Your task to perform on an android device: Set the phone to "Do not disturb". Image 0: 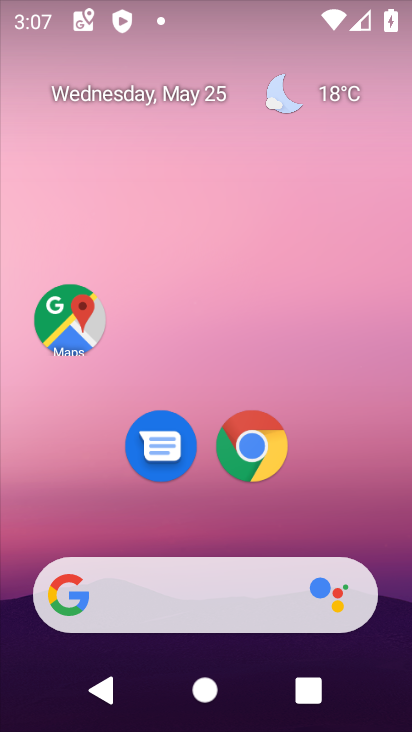
Step 0: drag from (197, 612) to (258, 15)
Your task to perform on an android device: Set the phone to "Do not disturb". Image 1: 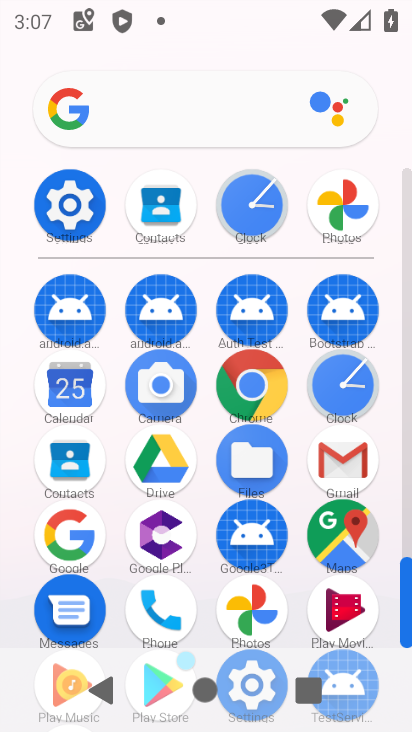
Step 1: click (72, 187)
Your task to perform on an android device: Set the phone to "Do not disturb". Image 2: 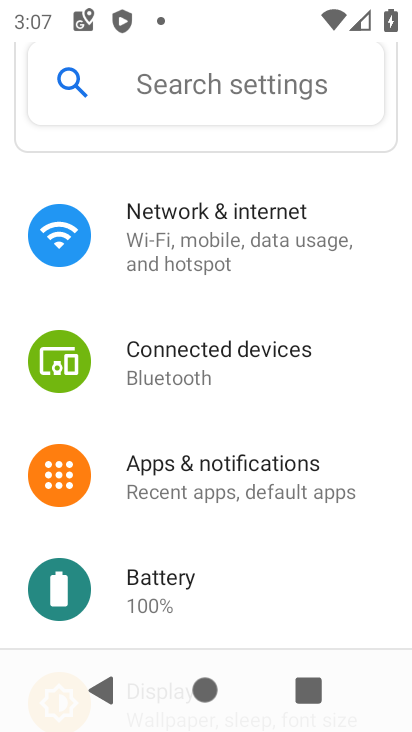
Step 2: drag from (262, 618) to (232, 145)
Your task to perform on an android device: Set the phone to "Do not disturb". Image 3: 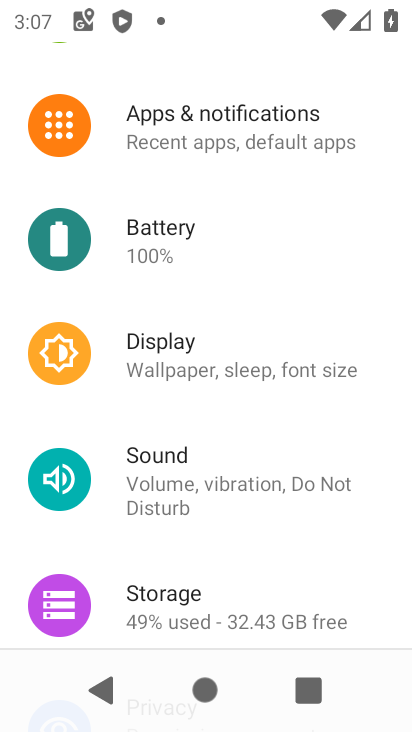
Step 3: drag from (166, 571) to (162, 494)
Your task to perform on an android device: Set the phone to "Do not disturb". Image 4: 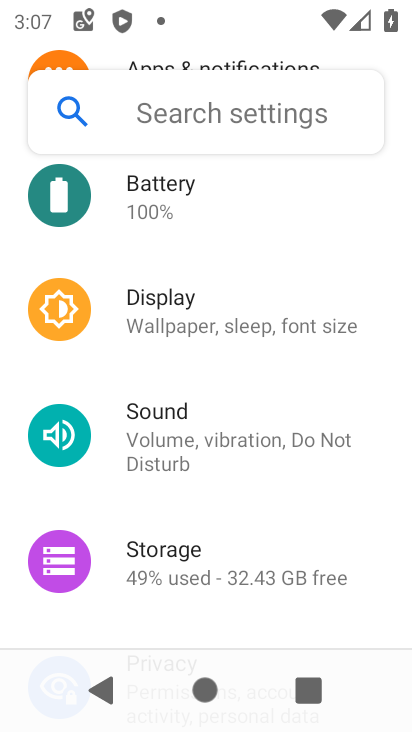
Step 4: click (178, 338)
Your task to perform on an android device: Set the phone to "Do not disturb". Image 5: 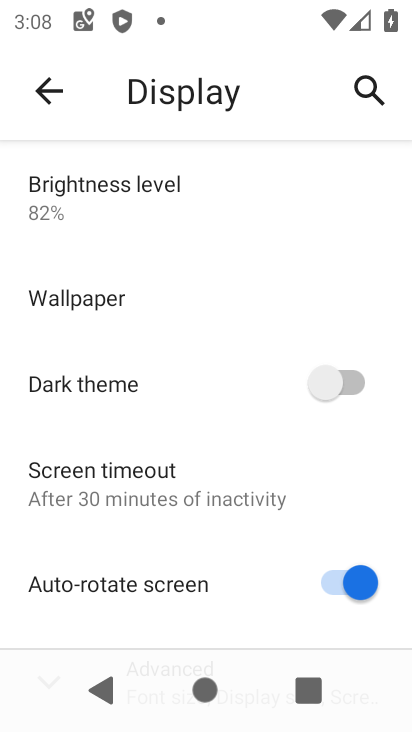
Step 5: drag from (140, 276) to (123, 629)
Your task to perform on an android device: Set the phone to "Do not disturb". Image 6: 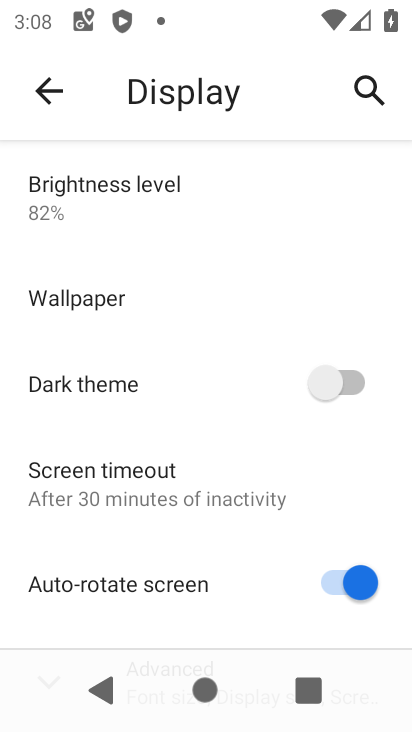
Step 6: drag from (228, 523) to (245, 131)
Your task to perform on an android device: Set the phone to "Do not disturb". Image 7: 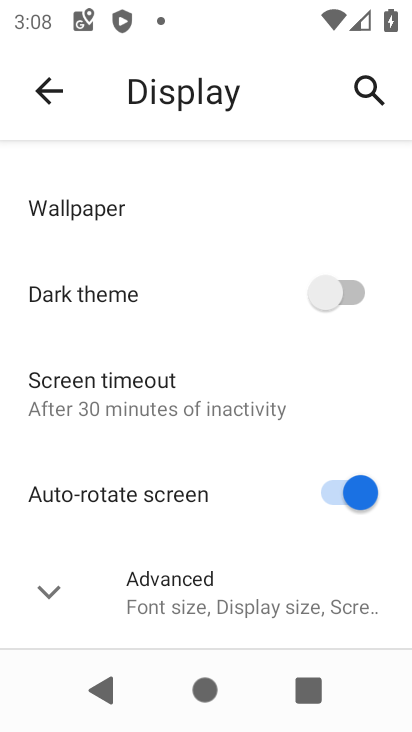
Step 7: drag from (164, 200) to (181, 658)
Your task to perform on an android device: Set the phone to "Do not disturb". Image 8: 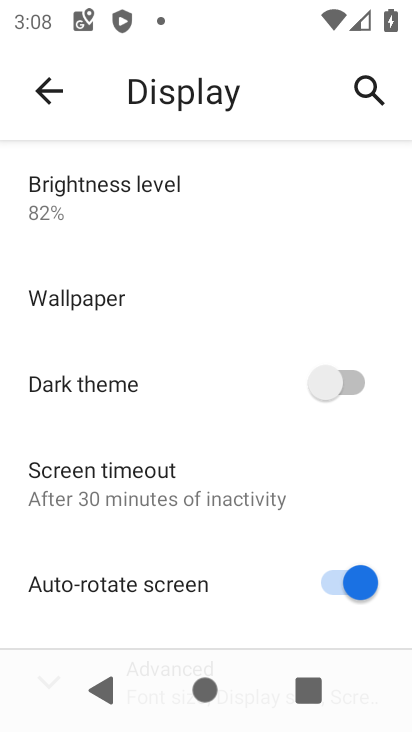
Step 8: drag from (181, 543) to (204, 92)
Your task to perform on an android device: Set the phone to "Do not disturb". Image 9: 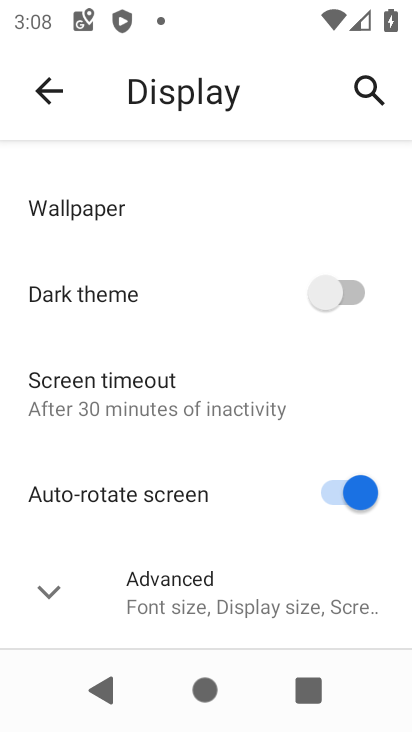
Step 9: click (62, 81)
Your task to perform on an android device: Set the phone to "Do not disturb". Image 10: 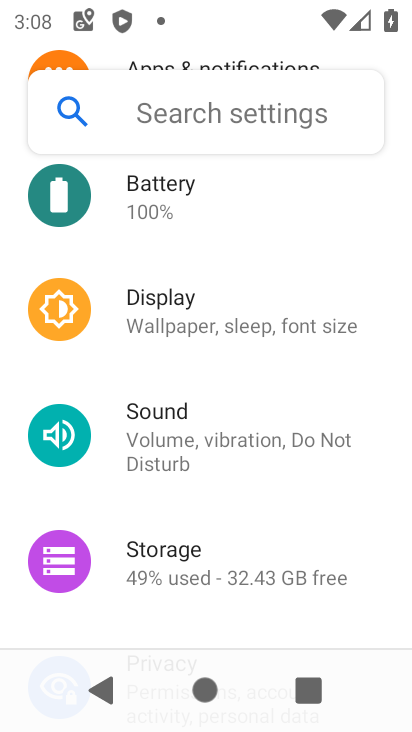
Step 10: click (170, 419)
Your task to perform on an android device: Set the phone to "Do not disturb". Image 11: 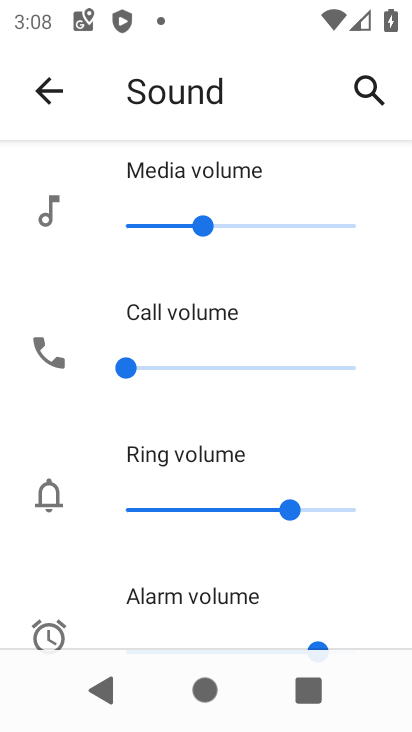
Step 11: drag from (249, 557) to (239, 62)
Your task to perform on an android device: Set the phone to "Do not disturb". Image 12: 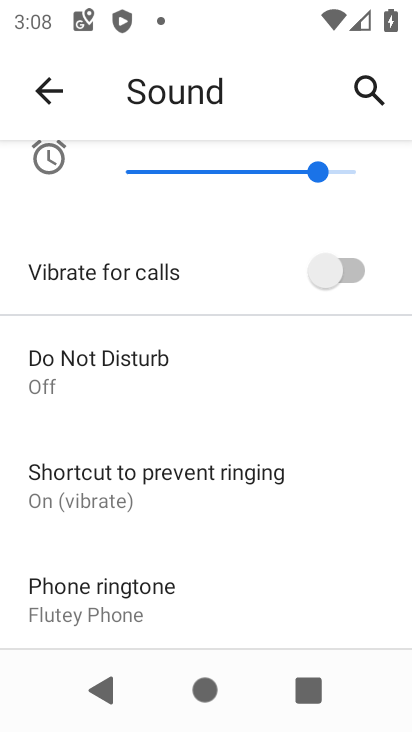
Step 12: click (129, 385)
Your task to perform on an android device: Set the phone to "Do not disturb". Image 13: 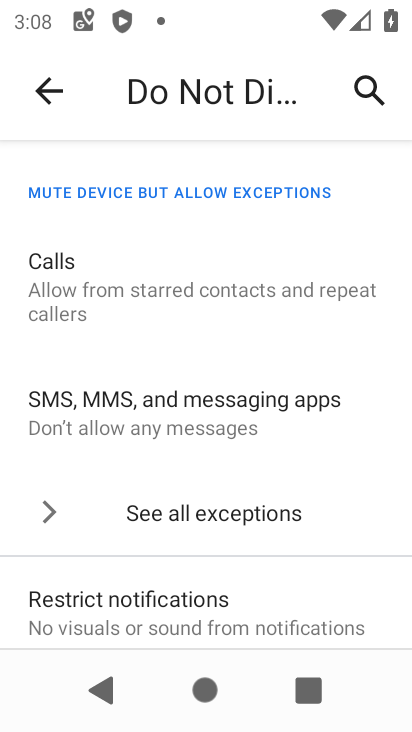
Step 13: drag from (234, 513) to (160, 18)
Your task to perform on an android device: Set the phone to "Do not disturb". Image 14: 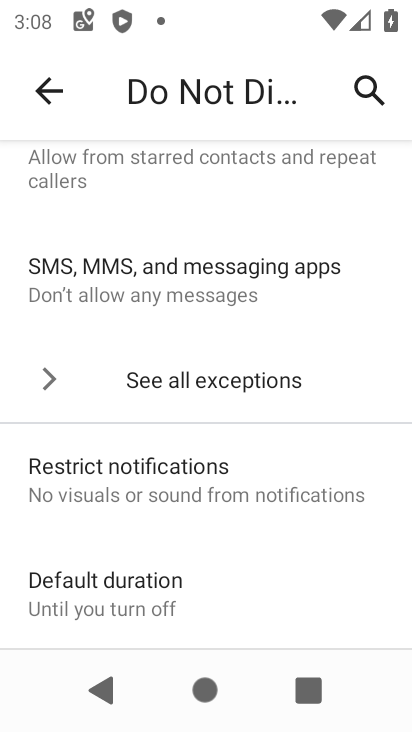
Step 14: drag from (259, 590) to (336, 104)
Your task to perform on an android device: Set the phone to "Do not disturb". Image 15: 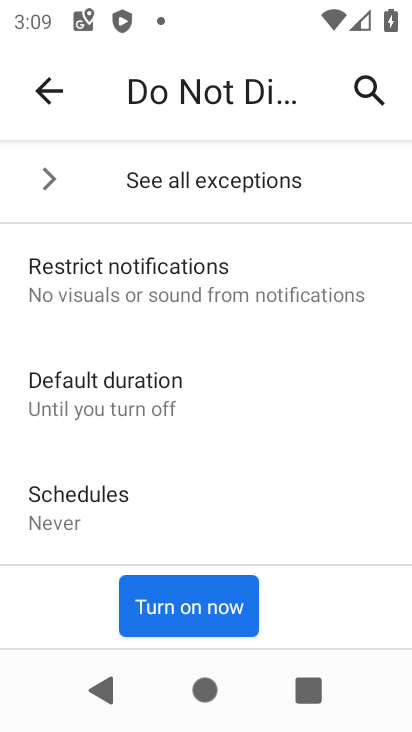
Step 15: drag from (265, 418) to (247, 142)
Your task to perform on an android device: Set the phone to "Do not disturb". Image 16: 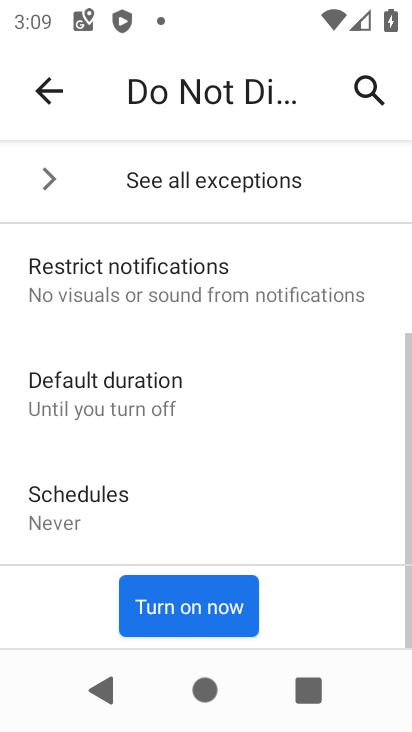
Step 16: click (190, 610)
Your task to perform on an android device: Set the phone to "Do not disturb". Image 17: 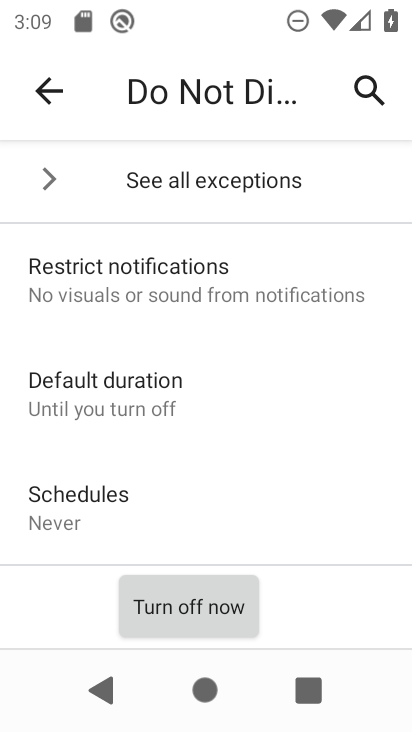
Step 17: task complete